Your task to perform on an android device: change keyboard looks Image 0: 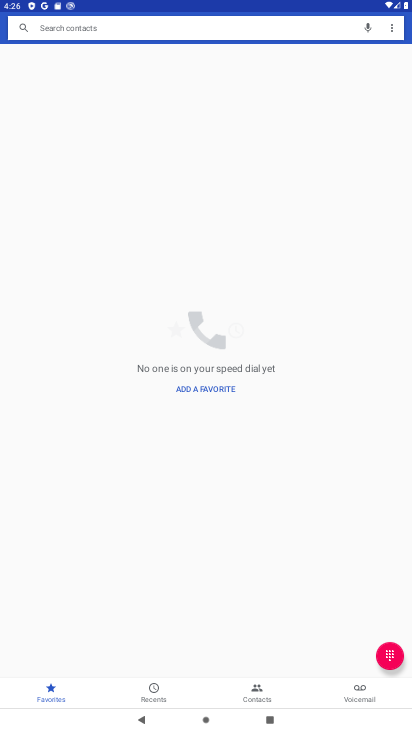
Step 0: press home button
Your task to perform on an android device: change keyboard looks Image 1: 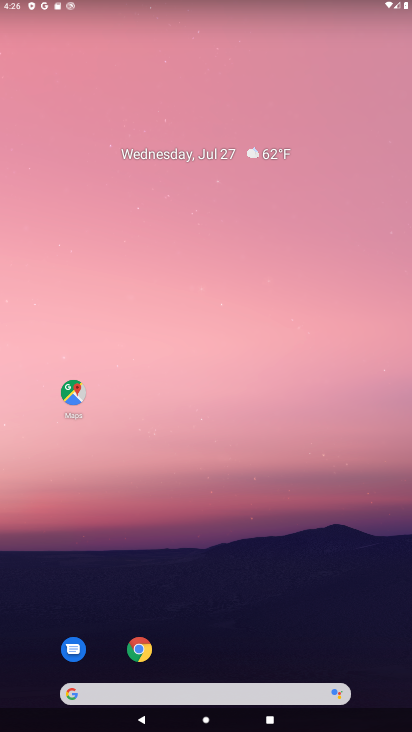
Step 1: drag from (286, 489) to (306, 317)
Your task to perform on an android device: change keyboard looks Image 2: 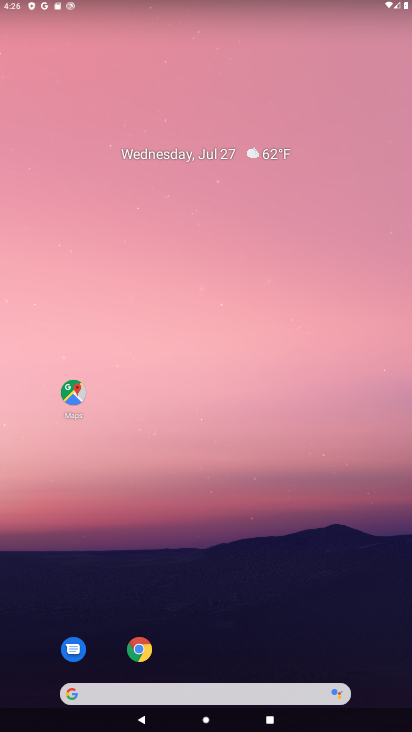
Step 2: drag from (220, 601) to (214, 134)
Your task to perform on an android device: change keyboard looks Image 3: 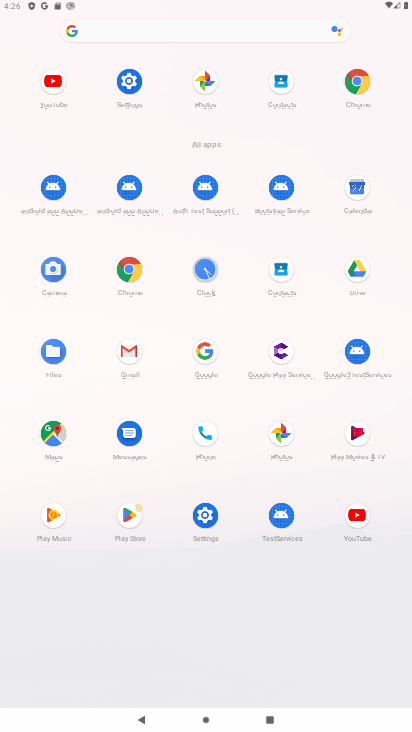
Step 3: click (198, 518)
Your task to perform on an android device: change keyboard looks Image 4: 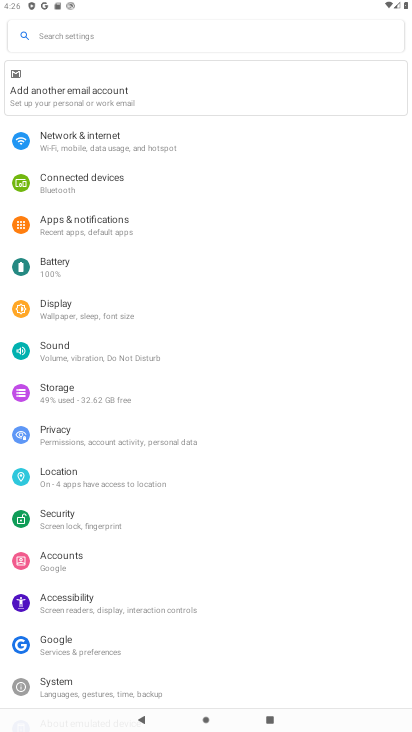
Step 4: task complete